Your task to perform on an android device: move an email to a new category in the gmail app Image 0: 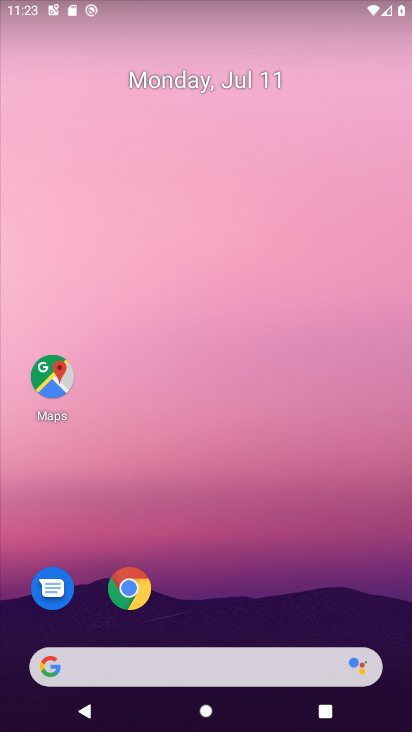
Step 0: drag from (253, 701) to (176, 260)
Your task to perform on an android device: move an email to a new category in the gmail app Image 1: 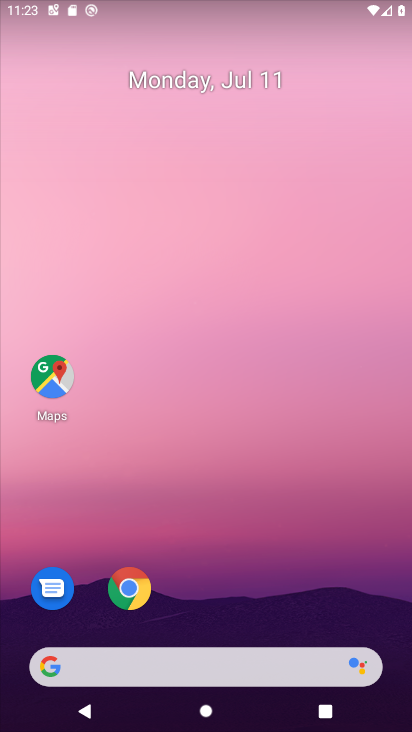
Step 1: drag from (265, 652) to (261, 425)
Your task to perform on an android device: move an email to a new category in the gmail app Image 2: 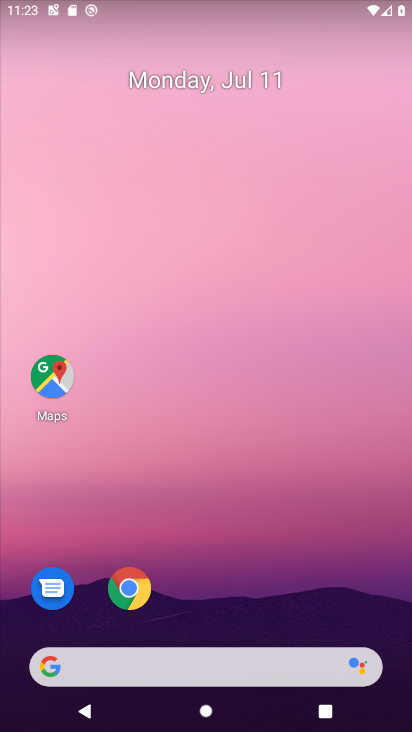
Step 2: drag from (266, 706) to (228, 375)
Your task to perform on an android device: move an email to a new category in the gmail app Image 3: 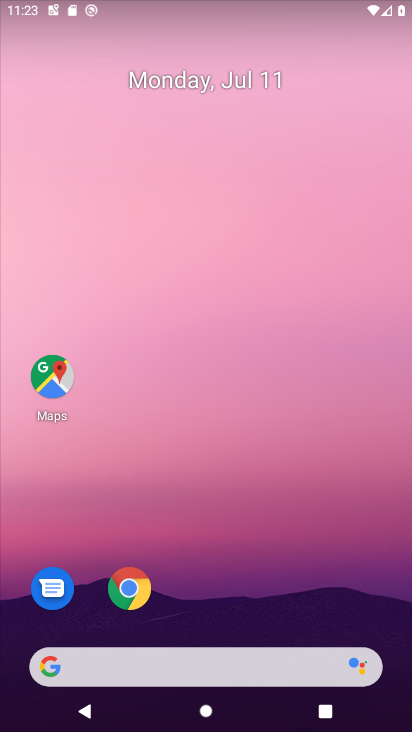
Step 3: drag from (274, 686) to (217, 188)
Your task to perform on an android device: move an email to a new category in the gmail app Image 4: 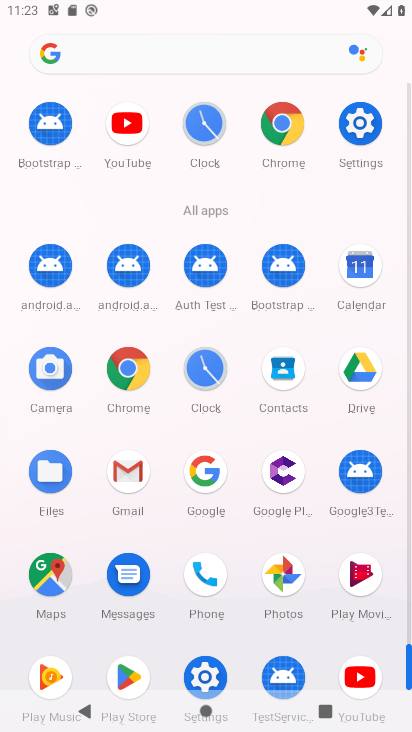
Step 4: click (121, 476)
Your task to perform on an android device: move an email to a new category in the gmail app Image 5: 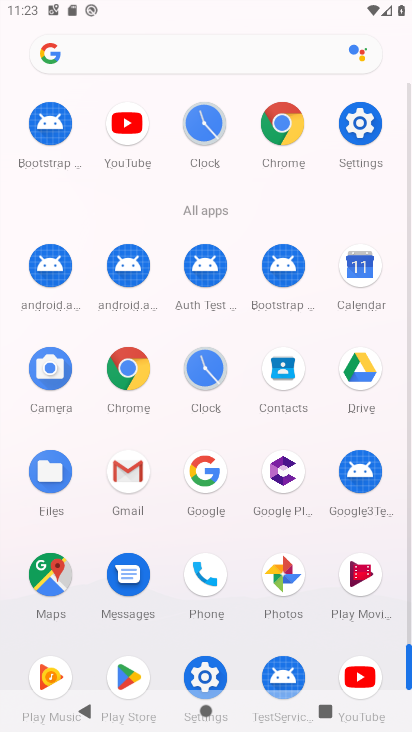
Step 5: click (120, 471)
Your task to perform on an android device: move an email to a new category in the gmail app Image 6: 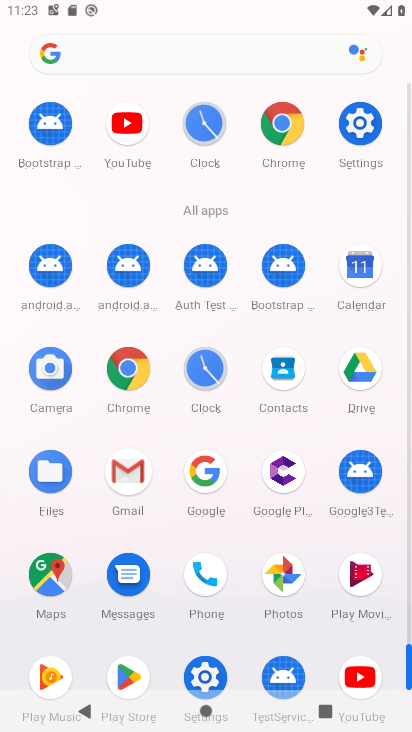
Step 6: click (120, 472)
Your task to perform on an android device: move an email to a new category in the gmail app Image 7: 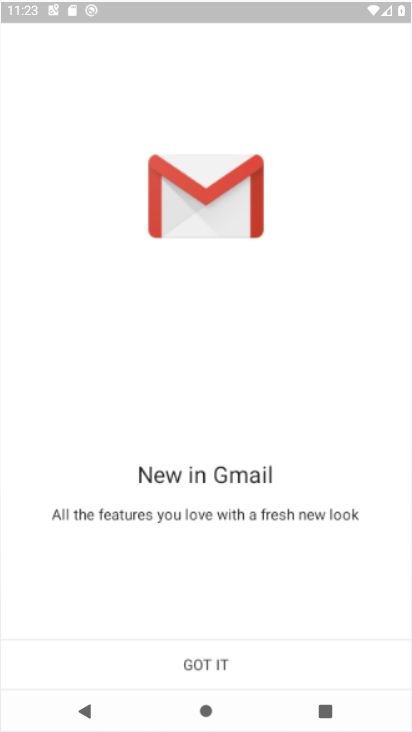
Step 7: click (121, 471)
Your task to perform on an android device: move an email to a new category in the gmail app Image 8: 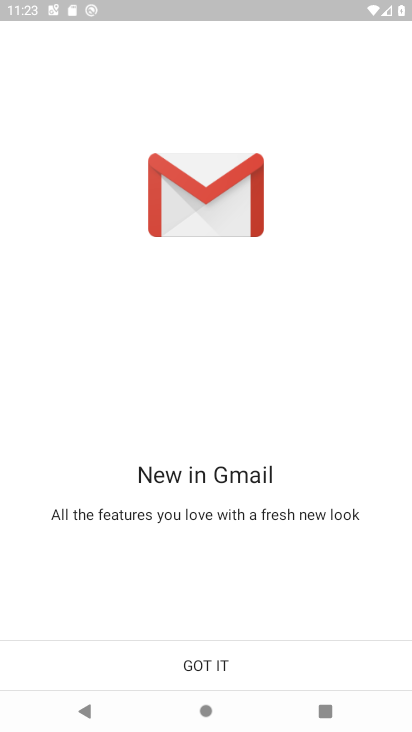
Step 8: click (209, 668)
Your task to perform on an android device: move an email to a new category in the gmail app Image 9: 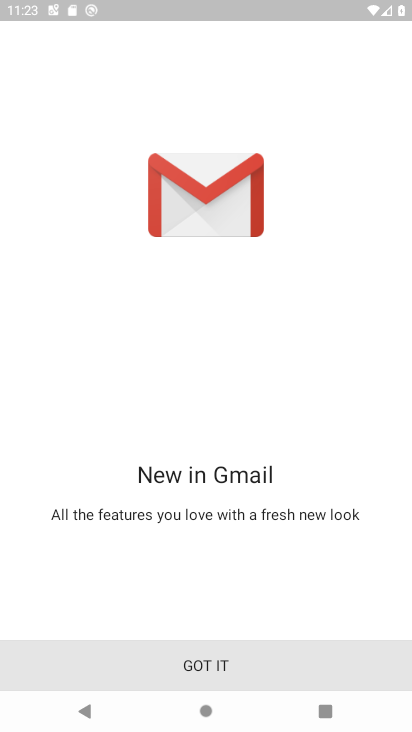
Step 9: click (206, 667)
Your task to perform on an android device: move an email to a new category in the gmail app Image 10: 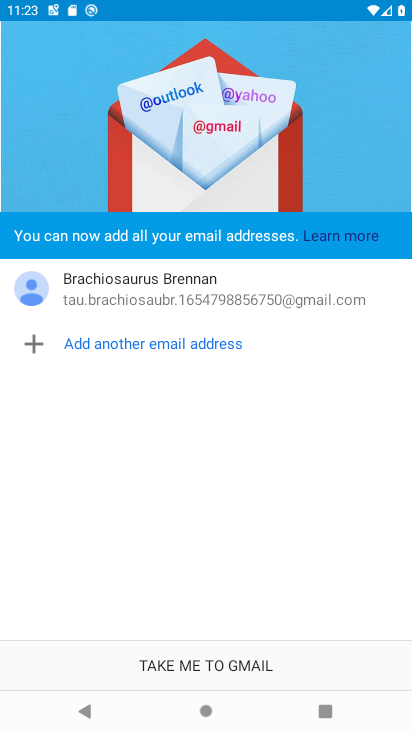
Step 10: click (176, 653)
Your task to perform on an android device: move an email to a new category in the gmail app Image 11: 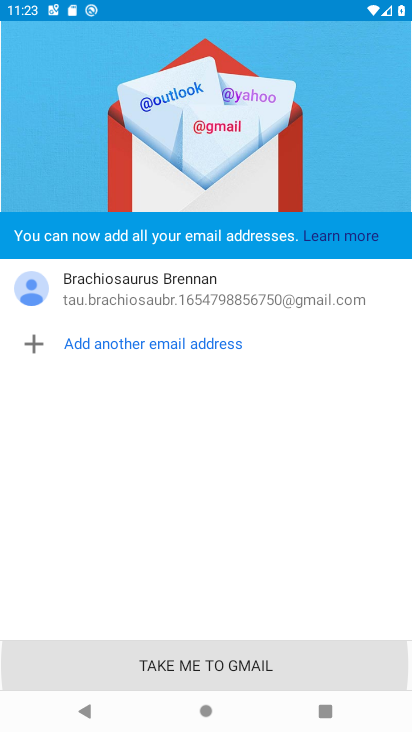
Step 11: click (167, 646)
Your task to perform on an android device: move an email to a new category in the gmail app Image 12: 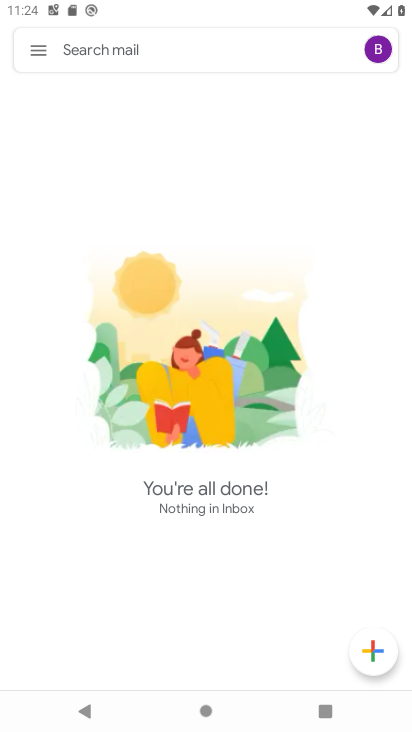
Step 12: click (28, 40)
Your task to perform on an android device: move an email to a new category in the gmail app Image 13: 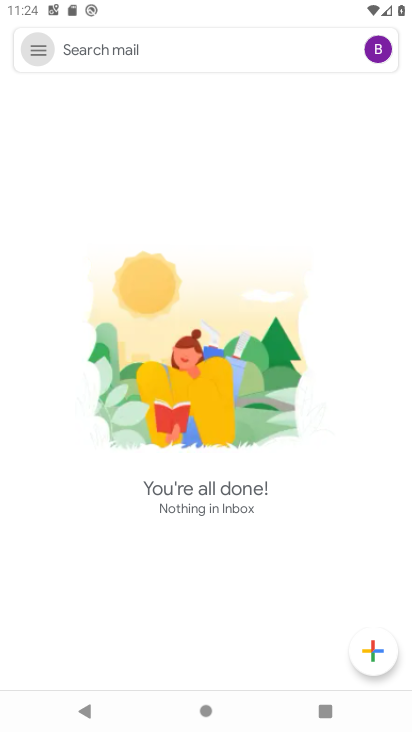
Step 13: click (33, 42)
Your task to perform on an android device: move an email to a new category in the gmail app Image 14: 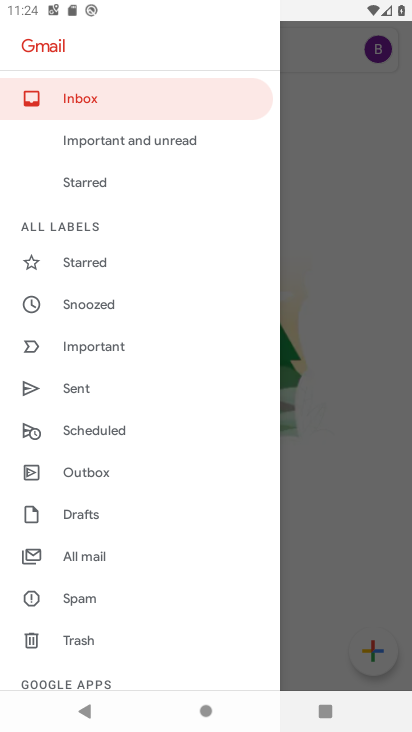
Step 14: click (85, 553)
Your task to perform on an android device: move an email to a new category in the gmail app Image 15: 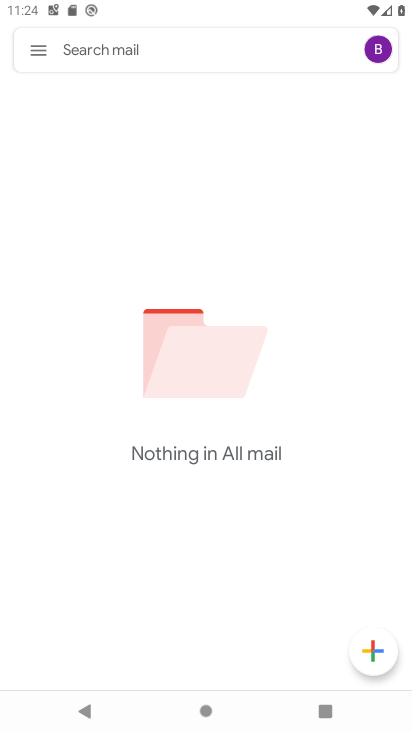
Step 15: task complete